Your task to perform on an android device: Open Chrome and go to settings Image 0: 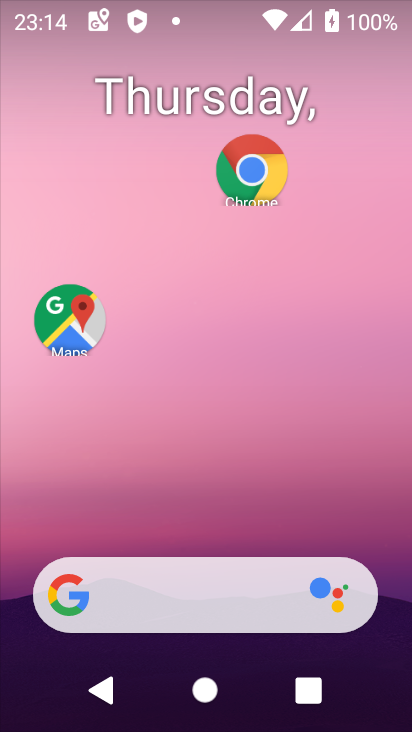
Step 0: click (240, 186)
Your task to perform on an android device: Open Chrome and go to settings Image 1: 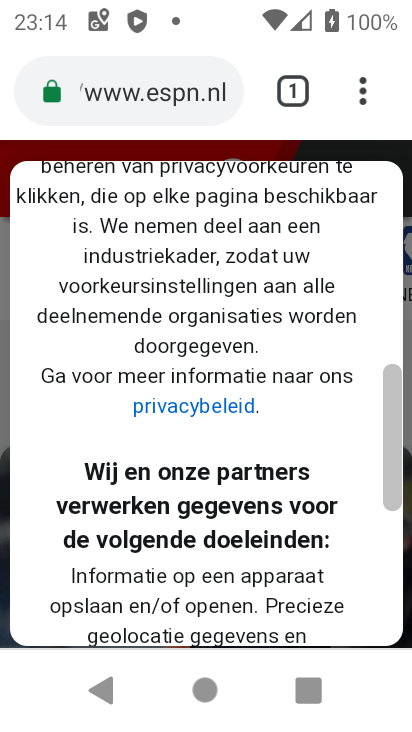
Step 1: click (364, 91)
Your task to perform on an android device: Open Chrome and go to settings Image 2: 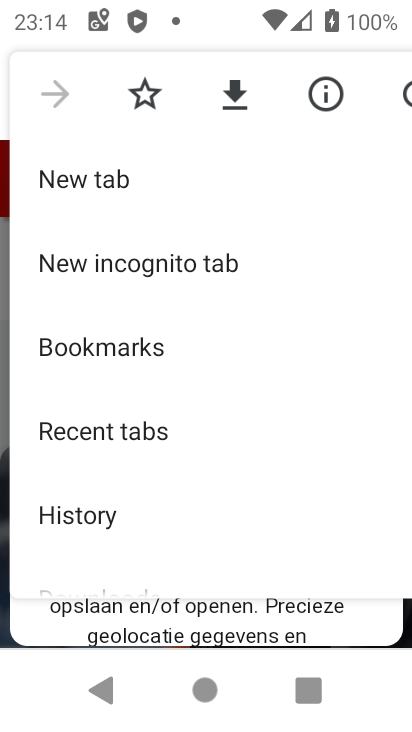
Step 2: drag from (186, 533) to (226, 258)
Your task to perform on an android device: Open Chrome and go to settings Image 3: 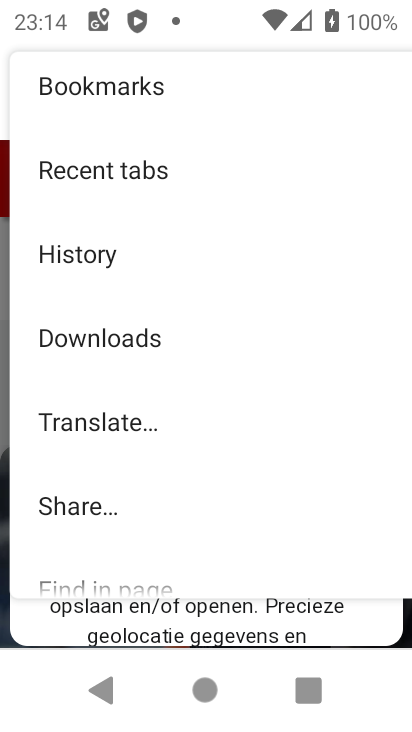
Step 3: drag from (118, 549) to (210, 243)
Your task to perform on an android device: Open Chrome and go to settings Image 4: 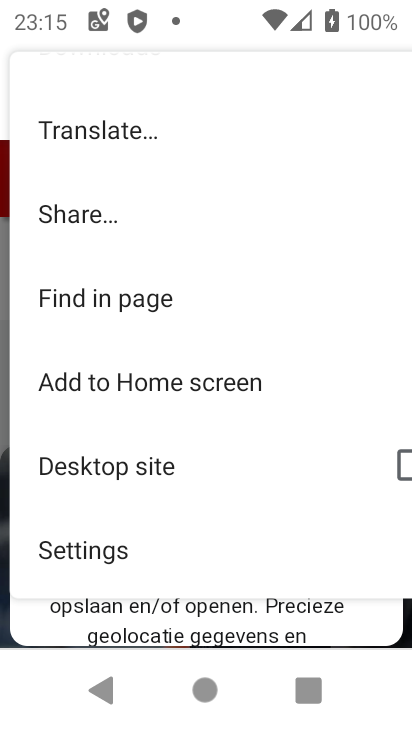
Step 4: click (88, 552)
Your task to perform on an android device: Open Chrome and go to settings Image 5: 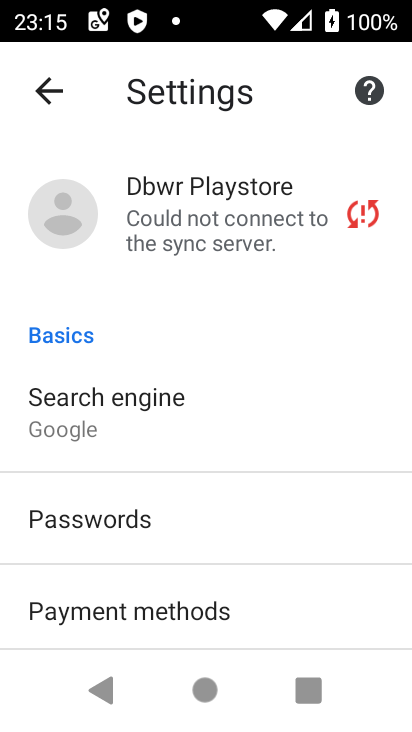
Step 5: click (236, 212)
Your task to perform on an android device: Open Chrome and go to settings Image 6: 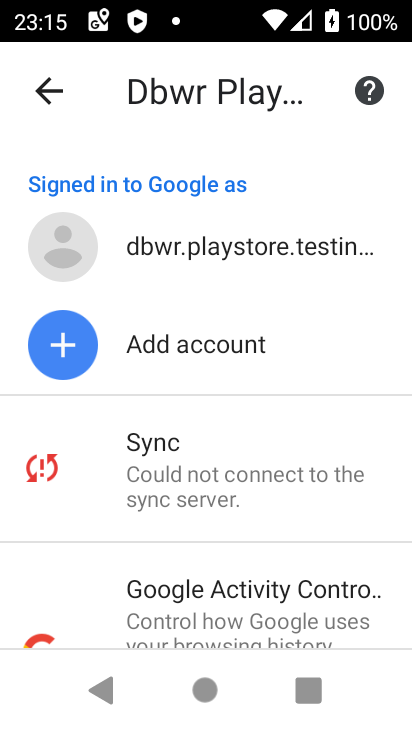
Step 6: task complete